Your task to perform on an android device: Go to Amazon Image 0: 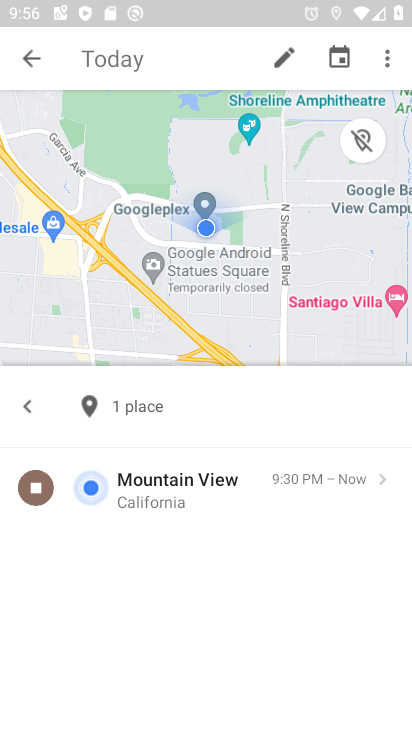
Step 0: press home button
Your task to perform on an android device: Go to Amazon Image 1: 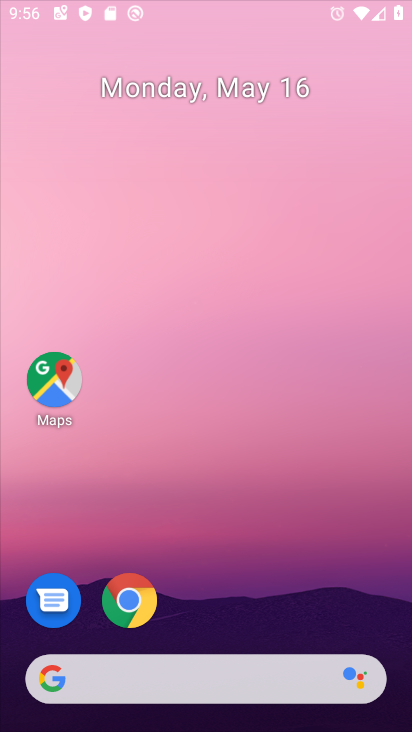
Step 1: drag from (239, 573) to (216, 0)
Your task to perform on an android device: Go to Amazon Image 2: 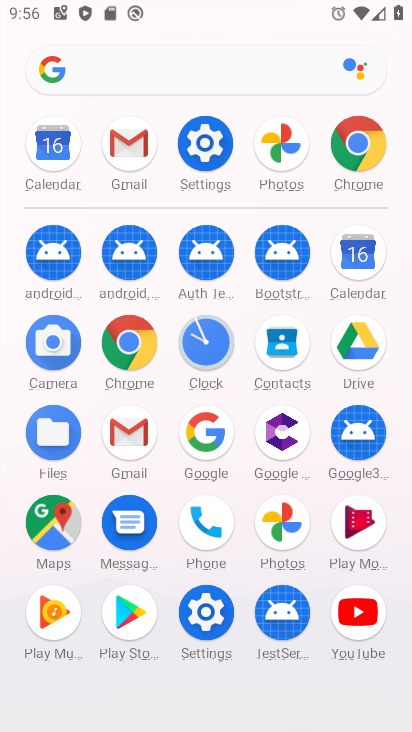
Step 2: click (186, 72)
Your task to perform on an android device: Go to Amazon Image 3: 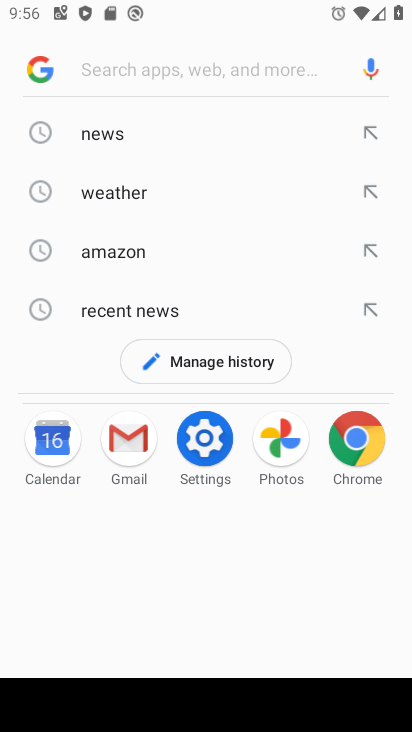
Step 3: click (129, 252)
Your task to perform on an android device: Go to Amazon Image 4: 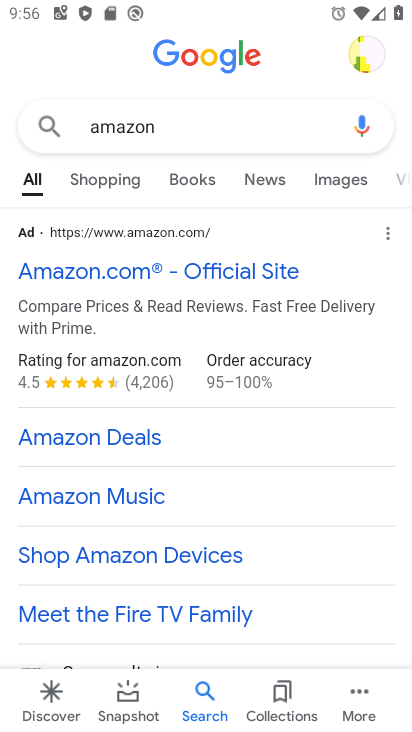
Step 4: click (51, 263)
Your task to perform on an android device: Go to Amazon Image 5: 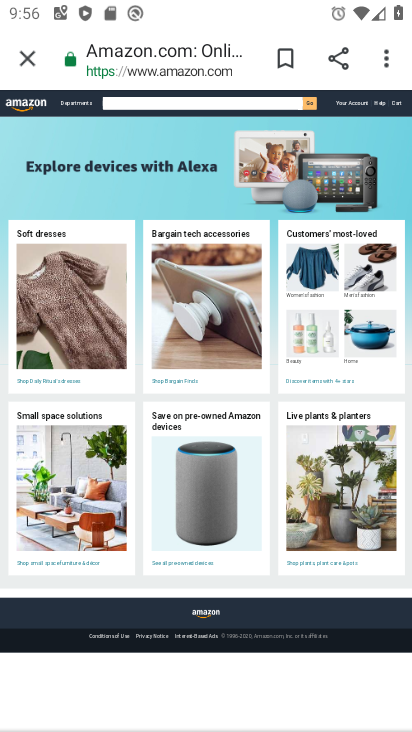
Step 5: task complete